Your task to perform on an android device: turn off translation in the chrome app Image 0: 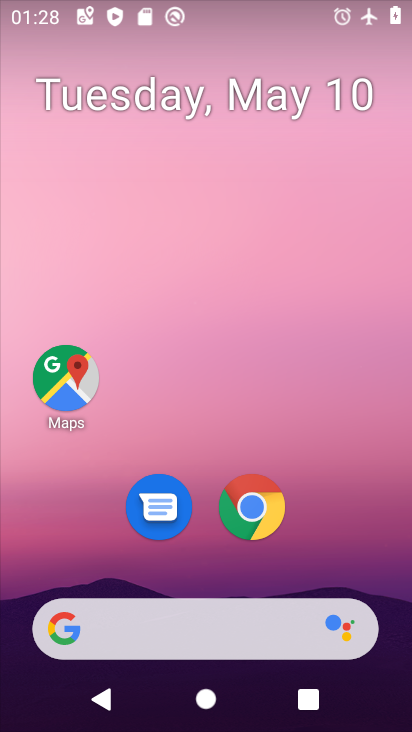
Step 0: drag from (196, 599) to (300, 151)
Your task to perform on an android device: turn off translation in the chrome app Image 1: 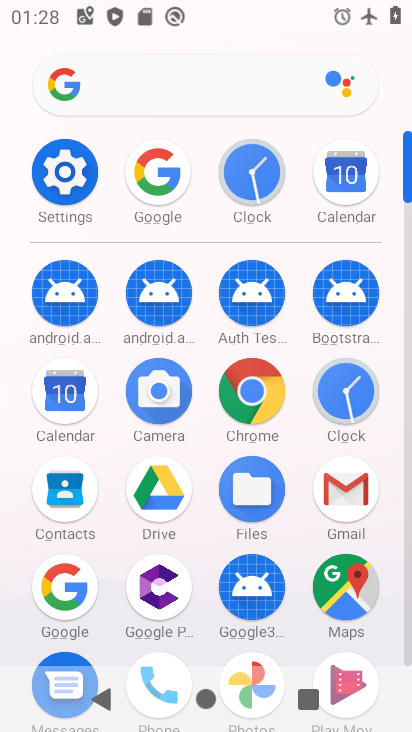
Step 1: click (248, 400)
Your task to perform on an android device: turn off translation in the chrome app Image 2: 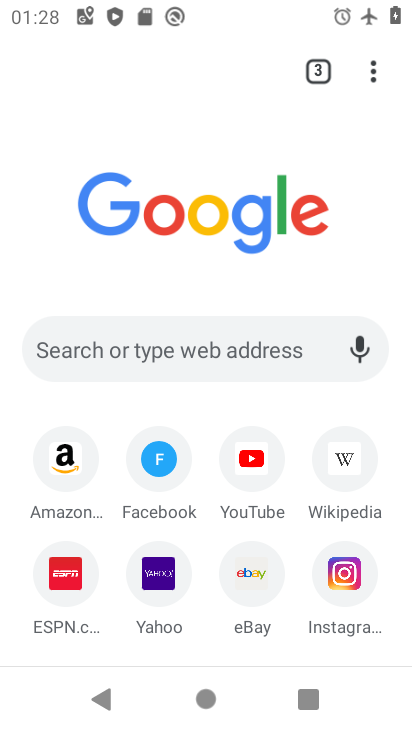
Step 2: click (371, 72)
Your task to perform on an android device: turn off translation in the chrome app Image 3: 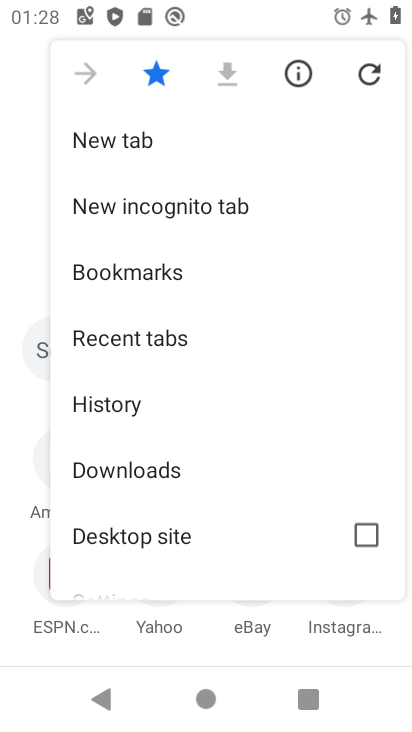
Step 3: drag from (169, 536) to (144, 230)
Your task to perform on an android device: turn off translation in the chrome app Image 4: 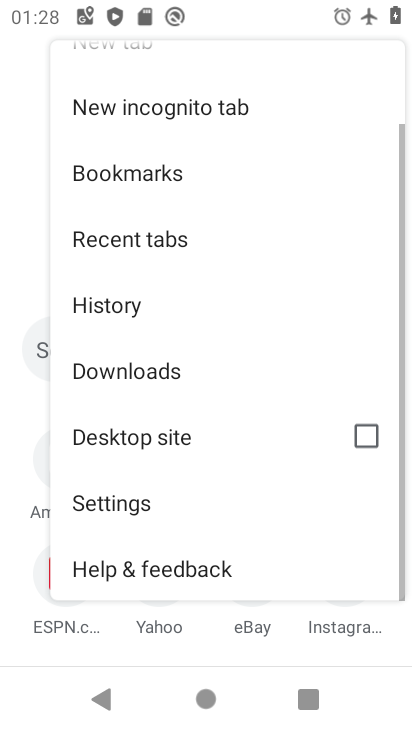
Step 4: click (112, 506)
Your task to perform on an android device: turn off translation in the chrome app Image 5: 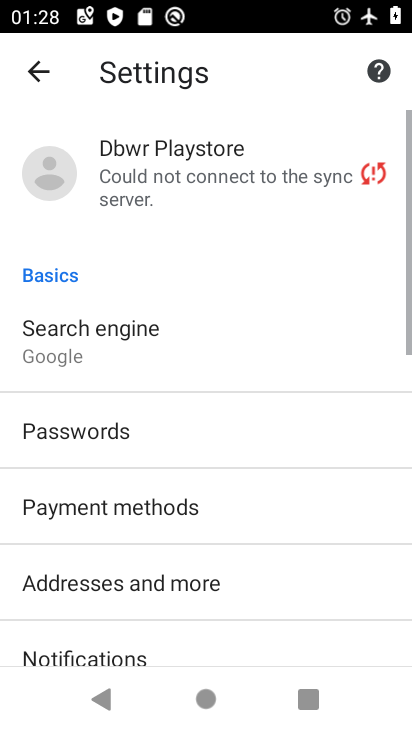
Step 5: drag from (148, 644) to (179, 254)
Your task to perform on an android device: turn off translation in the chrome app Image 6: 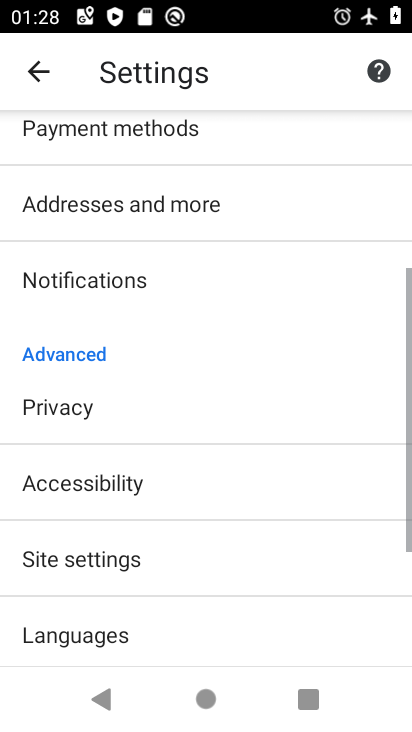
Step 6: click (122, 637)
Your task to perform on an android device: turn off translation in the chrome app Image 7: 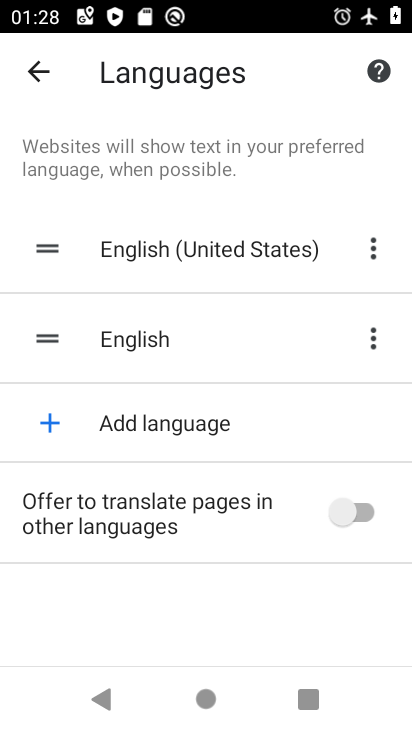
Step 7: task complete